Your task to perform on an android device: Play the last video I watched on Youtube Image 0: 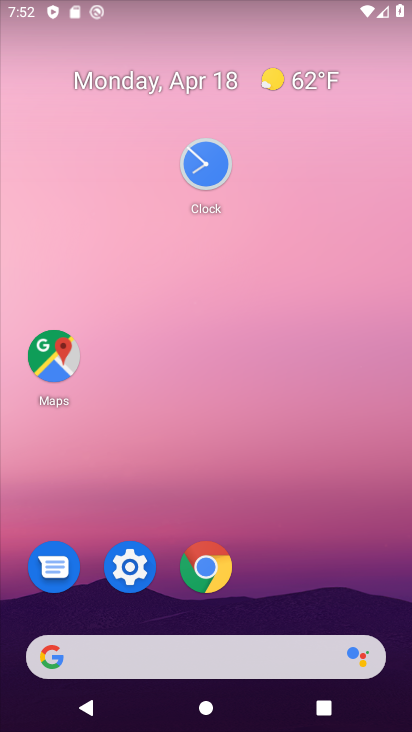
Step 0: drag from (262, 47) to (216, 19)
Your task to perform on an android device: Play the last video I watched on Youtube Image 1: 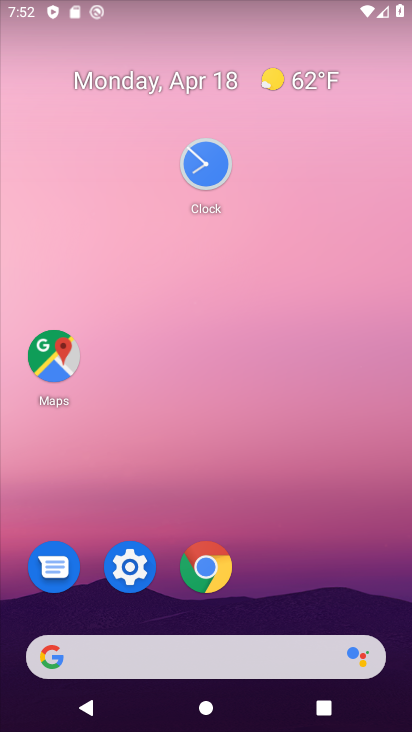
Step 1: drag from (281, 611) to (196, 45)
Your task to perform on an android device: Play the last video I watched on Youtube Image 2: 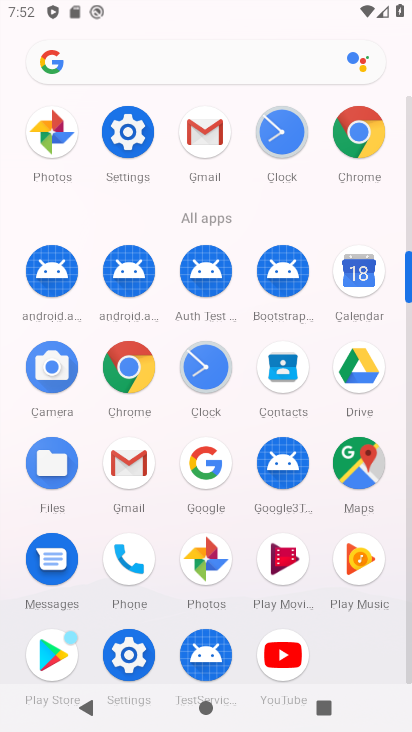
Step 2: click (283, 649)
Your task to perform on an android device: Play the last video I watched on Youtube Image 3: 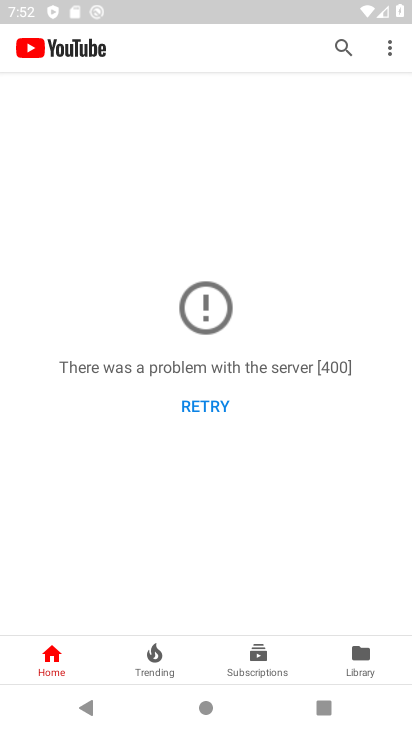
Step 3: click (216, 405)
Your task to perform on an android device: Play the last video I watched on Youtube Image 4: 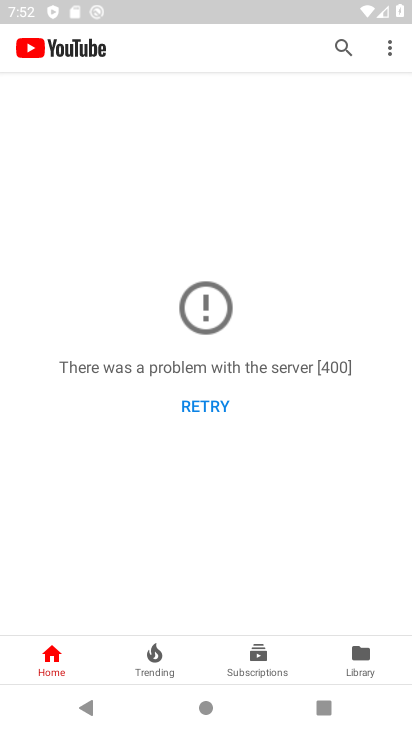
Step 4: task complete